Your task to perform on an android device: Open internet settings Image 0: 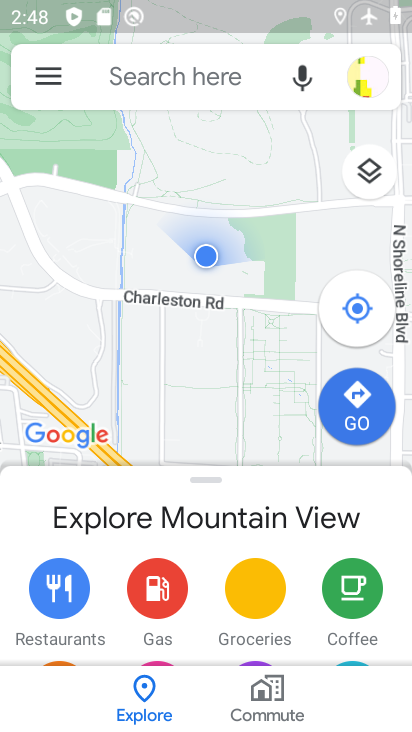
Step 0: press home button
Your task to perform on an android device: Open internet settings Image 1: 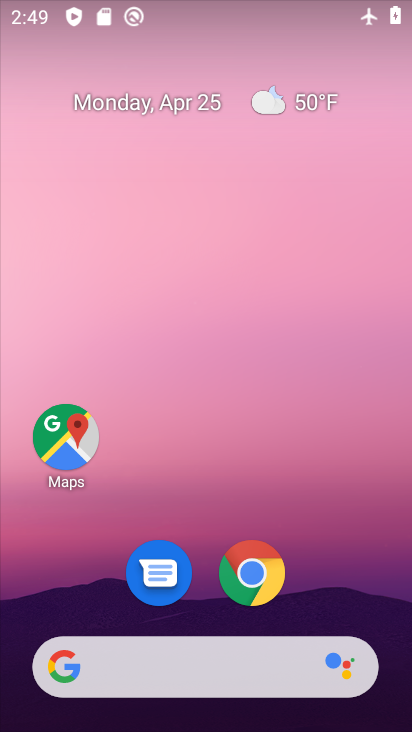
Step 1: drag from (381, 581) to (354, 0)
Your task to perform on an android device: Open internet settings Image 2: 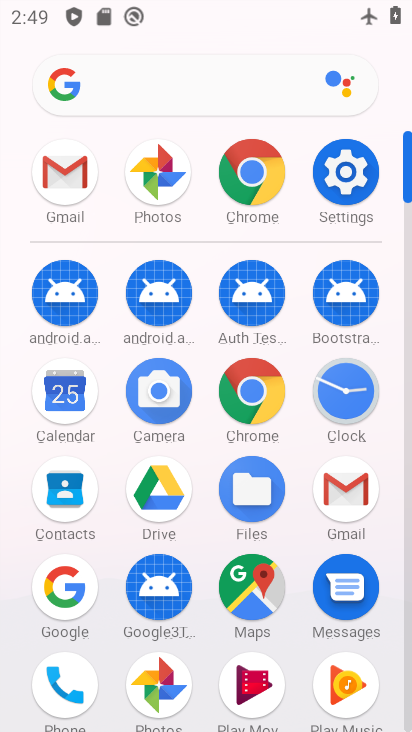
Step 2: click (360, 197)
Your task to perform on an android device: Open internet settings Image 3: 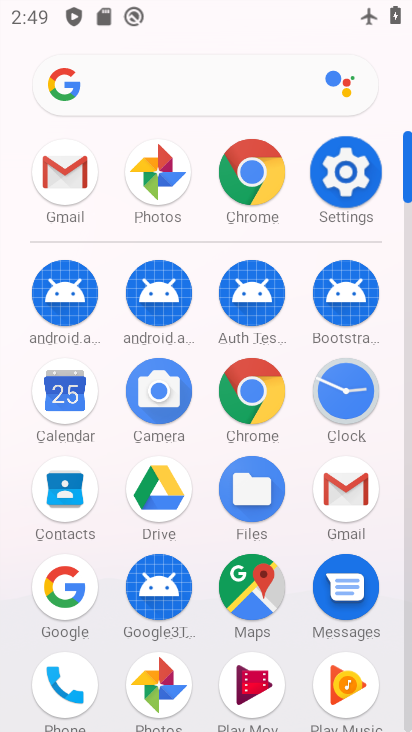
Step 3: click (364, 183)
Your task to perform on an android device: Open internet settings Image 4: 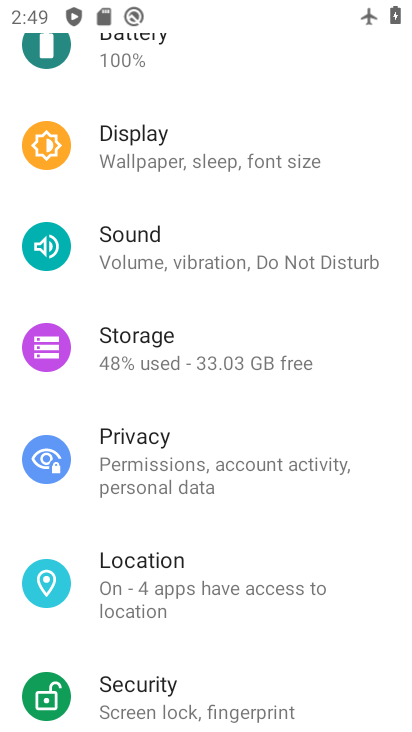
Step 4: drag from (298, 389) to (296, 580)
Your task to perform on an android device: Open internet settings Image 5: 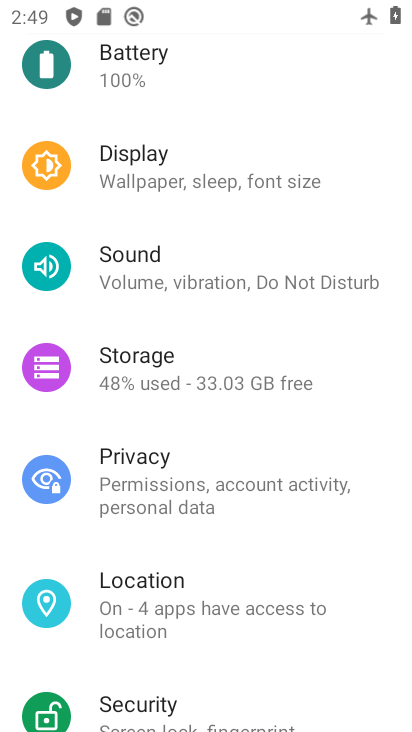
Step 5: drag from (334, 235) to (333, 621)
Your task to perform on an android device: Open internet settings Image 6: 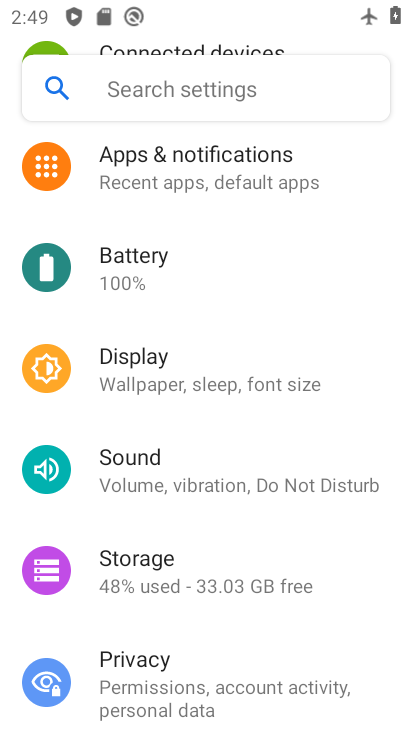
Step 6: drag from (234, 179) to (267, 619)
Your task to perform on an android device: Open internet settings Image 7: 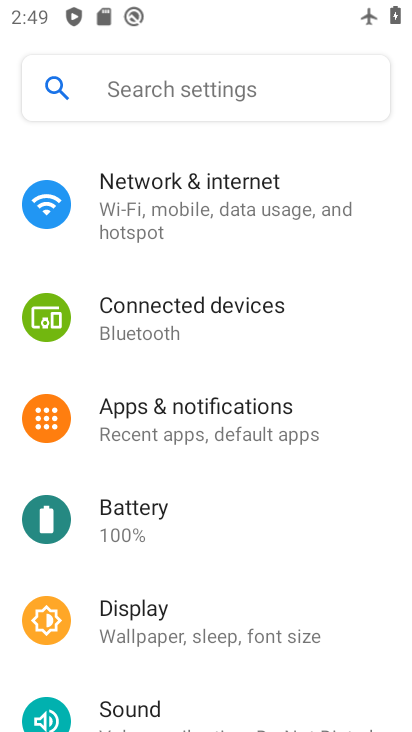
Step 7: drag from (256, 330) to (279, 658)
Your task to perform on an android device: Open internet settings Image 8: 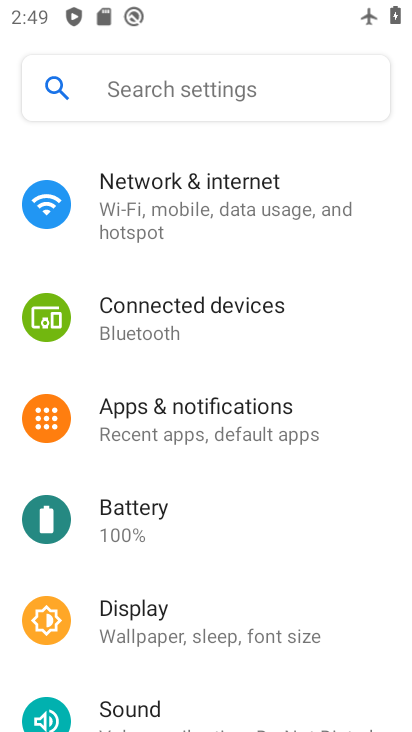
Step 8: click (154, 188)
Your task to perform on an android device: Open internet settings Image 9: 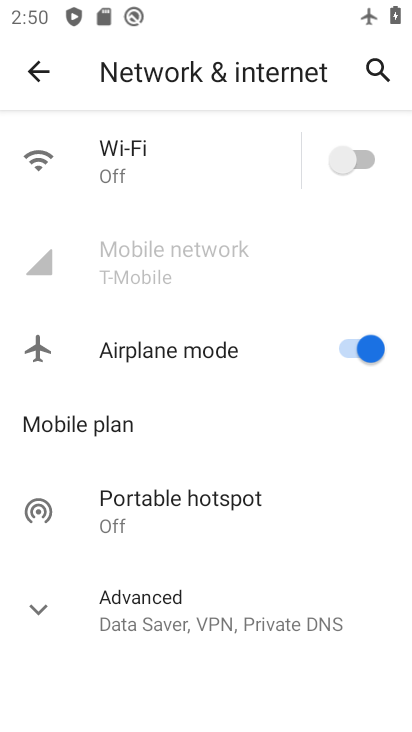
Step 9: task complete